Your task to perform on an android device: allow notifications from all sites in the chrome app Image 0: 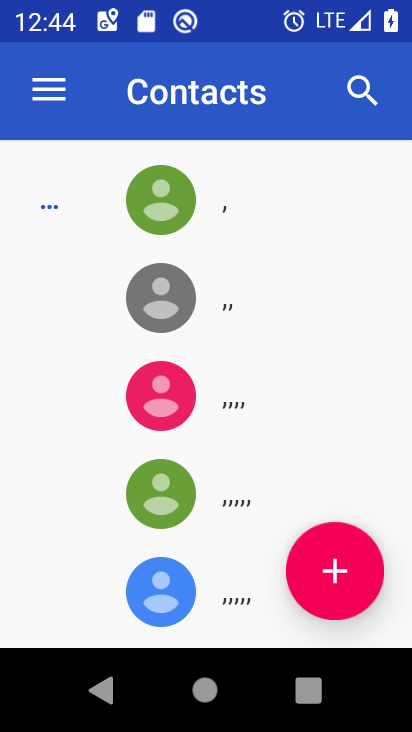
Step 0: press home button
Your task to perform on an android device: allow notifications from all sites in the chrome app Image 1: 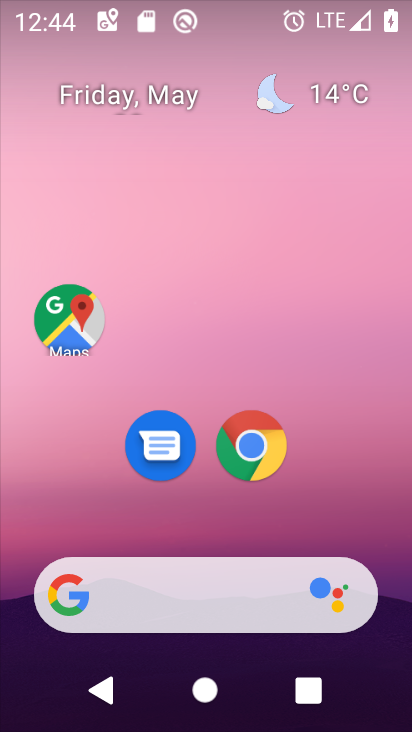
Step 1: click (257, 455)
Your task to perform on an android device: allow notifications from all sites in the chrome app Image 2: 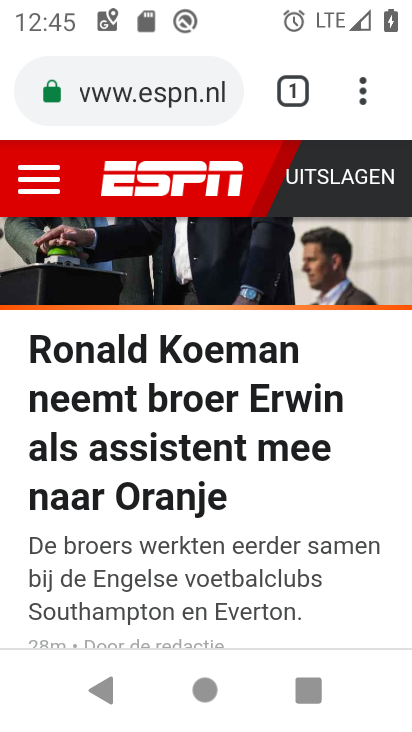
Step 2: press home button
Your task to perform on an android device: allow notifications from all sites in the chrome app Image 3: 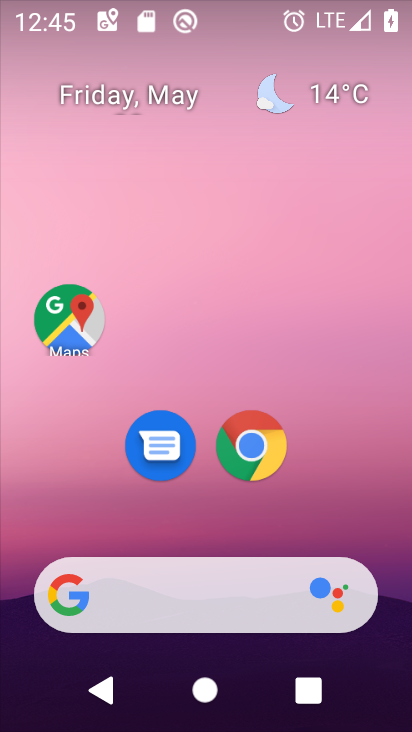
Step 3: click (252, 438)
Your task to perform on an android device: allow notifications from all sites in the chrome app Image 4: 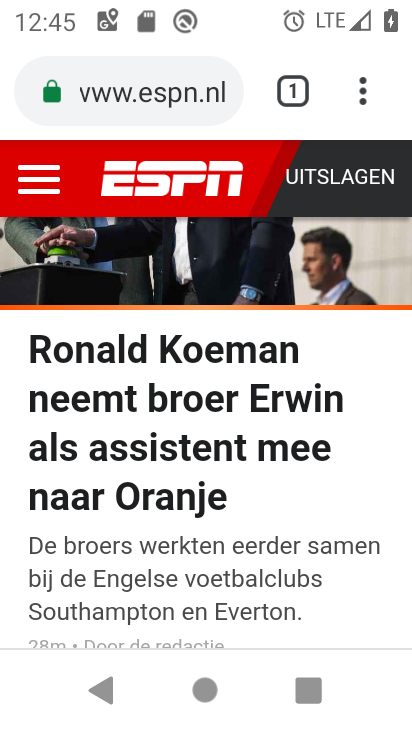
Step 4: click (359, 84)
Your task to perform on an android device: allow notifications from all sites in the chrome app Image 5: 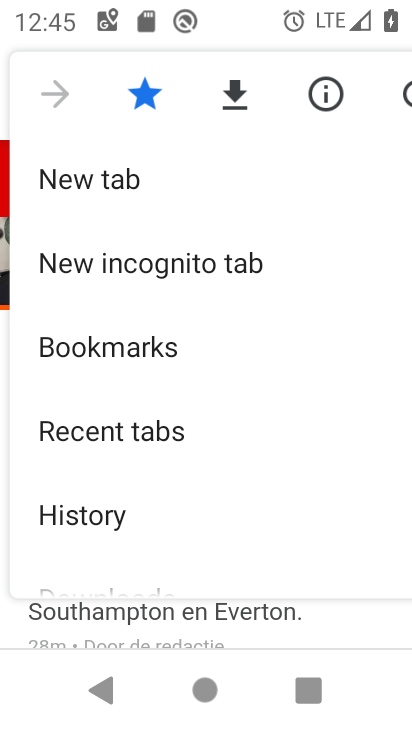
Step 5: drag from (44, 549) to (227, 116)
Your task to perform on an android device: allow notifications from all sites in the chrome app Image 6: 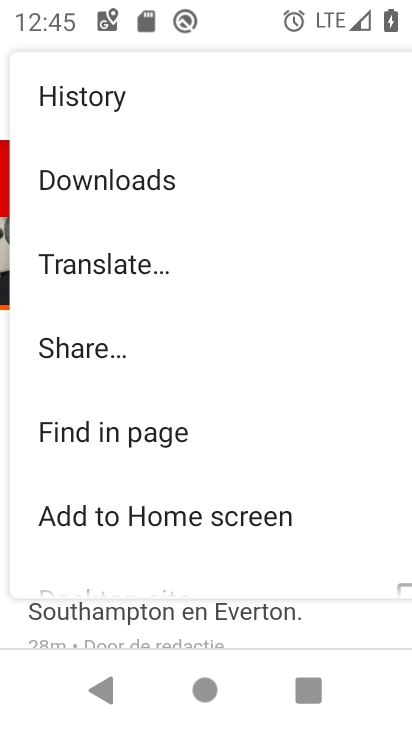
Step 6: drag from (50, 544) to (240, 149)
Your task to perform on an android device: allow notifications from all sites in the chrome app Image 7: 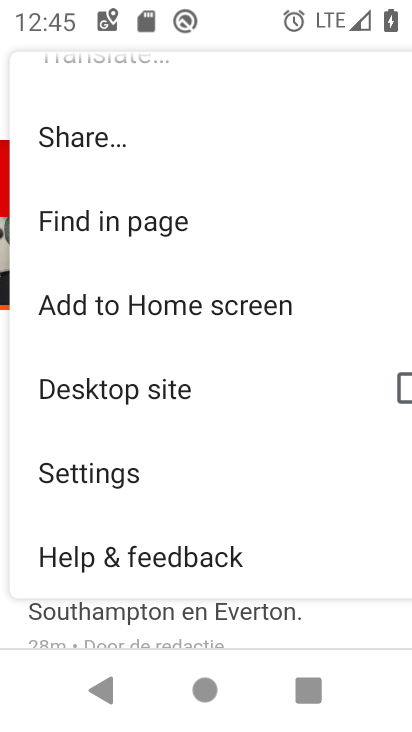
Step 7: click (117, 479)
Your task to perform on an android device: allow notifications from all sites in the chrome app Image 8: 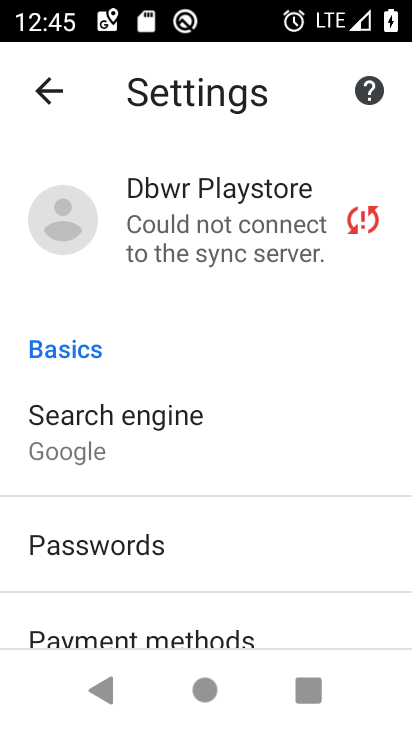
Step 8: drag from (48, 410) to (194, 158)
Your task to perform on an android device: allow notifications from all sites in the chrome app Image 9: 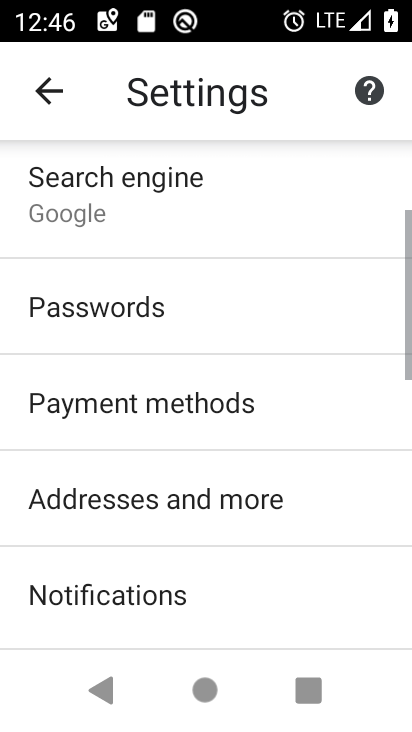
Step 9: drag from (21, 450) to (114, 298)
Your task to perform on an android device: allow notifications from all sites in the chrome app Image 10: 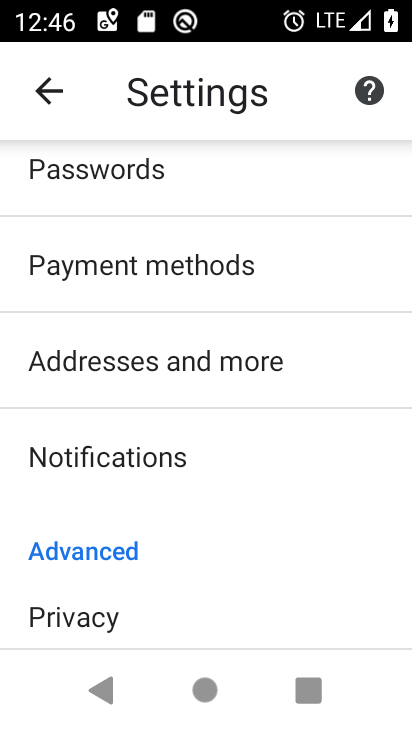
Step 10: click (64, 454)
Your task to perform on an android device: allow notifications from all sites in the chrome app Image 11: 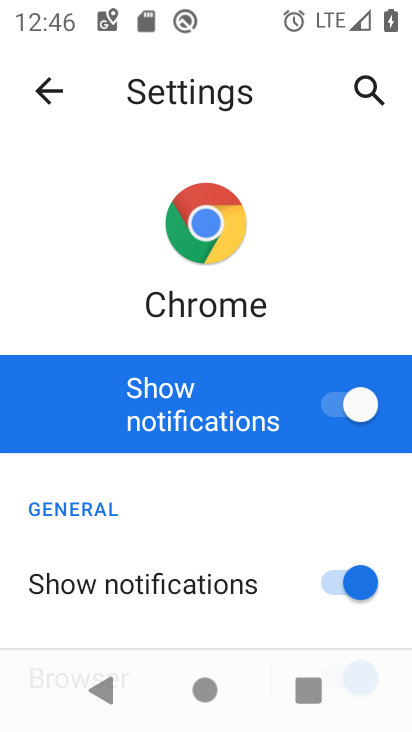
Step 11: click (368, 411)
Your task to perform on an android device: allow notifications from all sites in the chrome app Image 12: 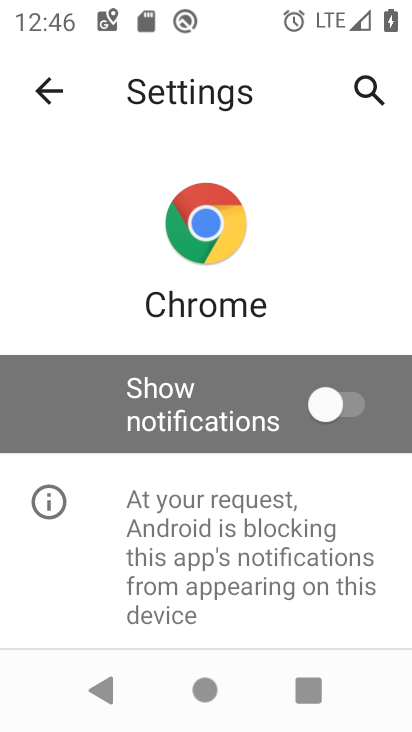
Step 12: task complete